Your task to perform on an android device: Go to Android settings Image 0: 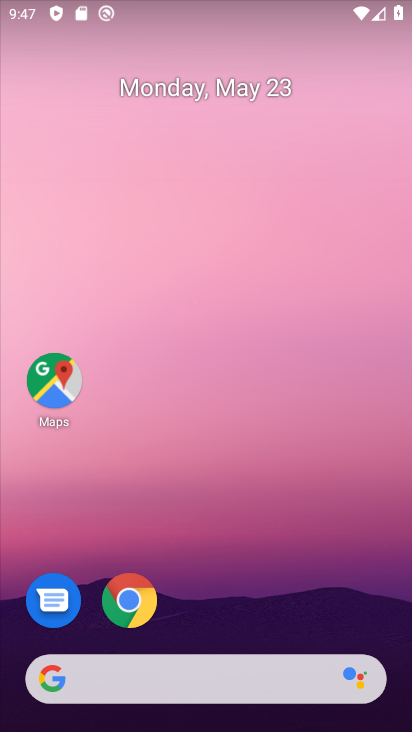
Step 0: drag from (212, 593) to (262, 39)
Your task to perform on an android device: Go to Android settings Image 1: 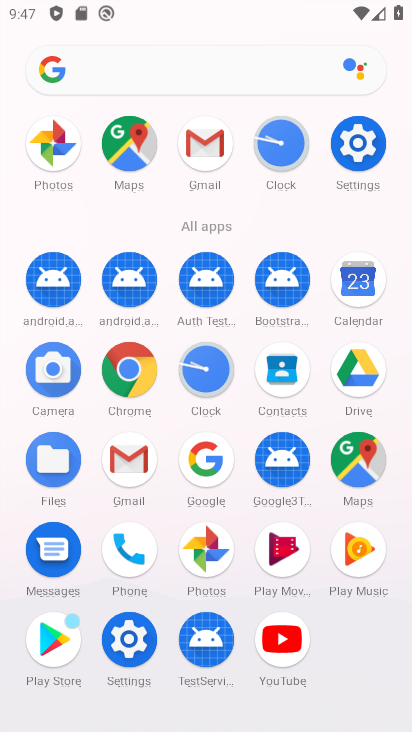
Step 1: click (353, 141)
Your task to perform on an android device: Go to Android settings Image 2: 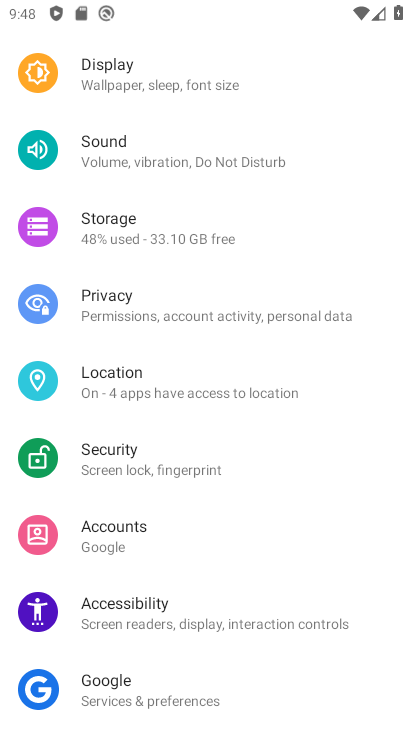
Step 2: task complete